Your task to perform on an android device: toggle priority inbox in the gmail app Image 0: 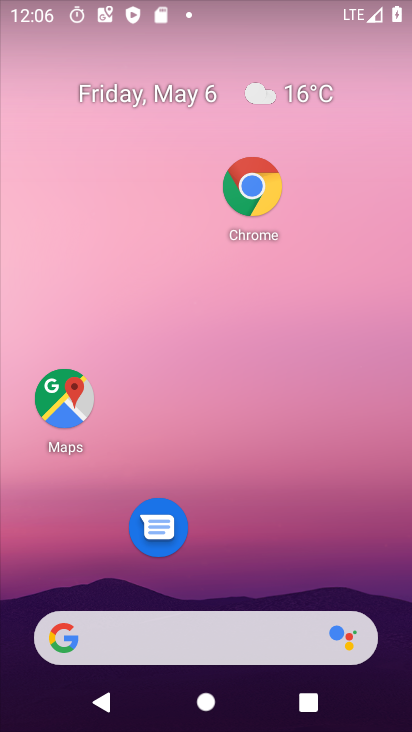
Step 0: drag from (229, 501) to (291, 0)
Your task to perform on an android device: toggle priority inbox in the gmail app Image 1: 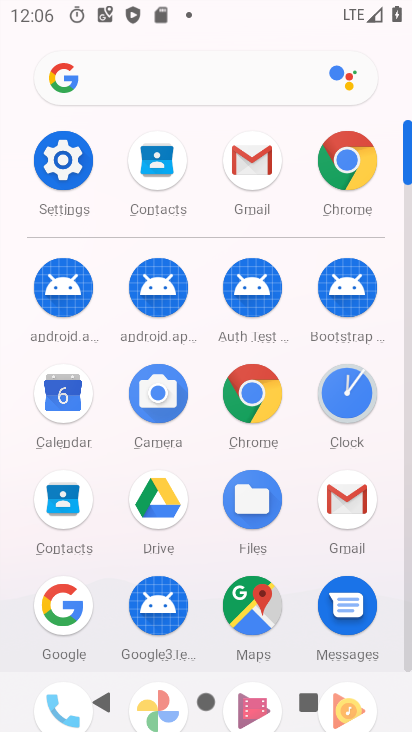
Step 1: click (356, 511)
Your task to perform on an android device: toggle priority inbox in the gmail app Image 2: 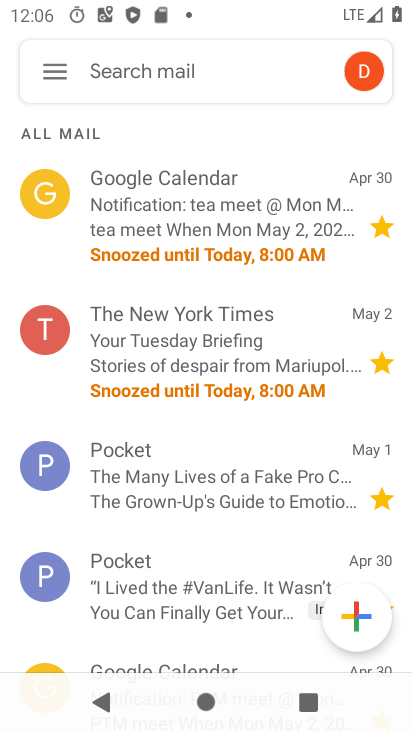
Step 2: click (57, 80)
Your task to perform on an android device: toggle priority inbox in the gmail app Image 3: 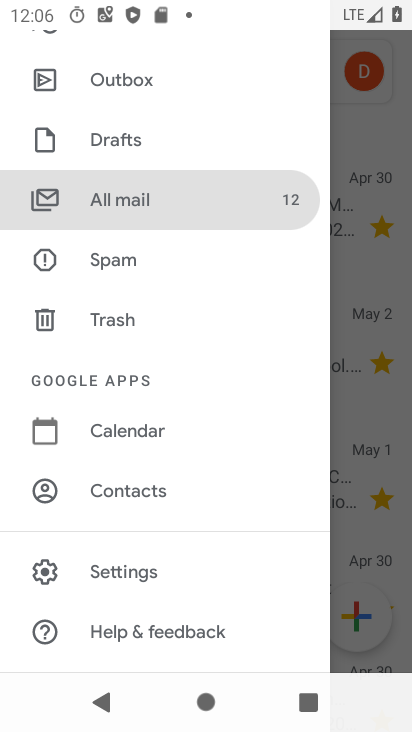
Step 3: drag from (154, 597) to (155, 537)
Your task to perform on an android device: toggle priority inbox in the gmail app Image 4: 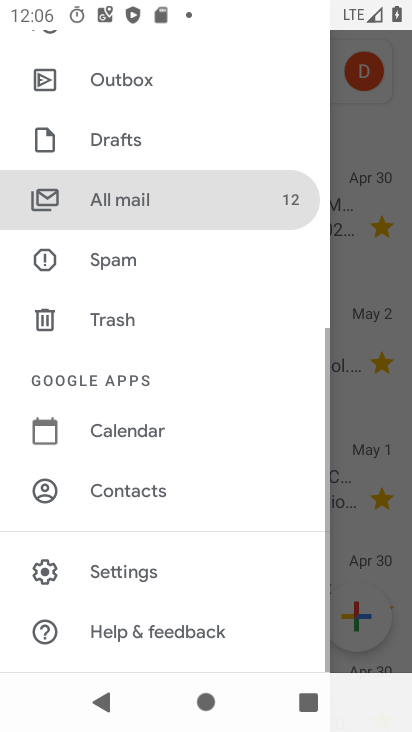
Step 4: click (139, 570)
Your task to perform on an android device: toggle priority inbox in the gmail app Image 5: 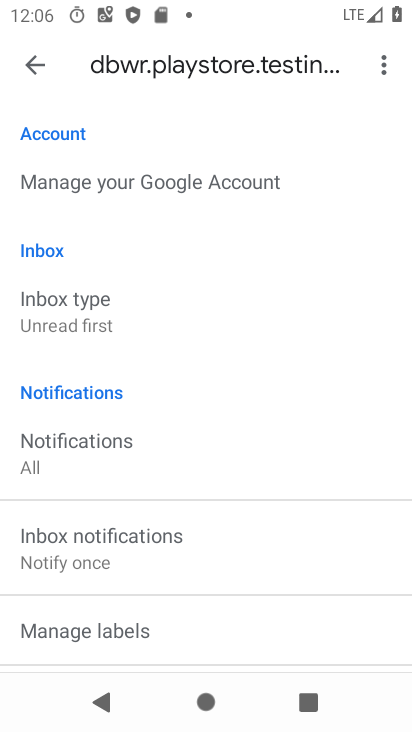
Step 5: click (33, 60)
Your task to perform on an android device: toggle priority inbox in the gmail app Image 6: 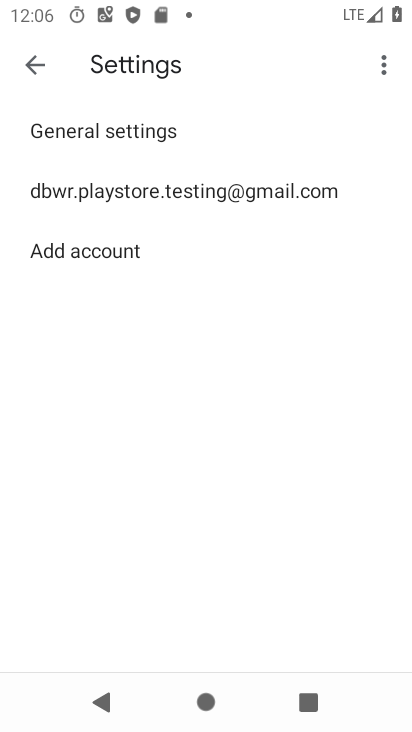
Step 6: click (163, 203)
Your task to perform on an android device: toggle priority inbox in the gmail app Image 7: 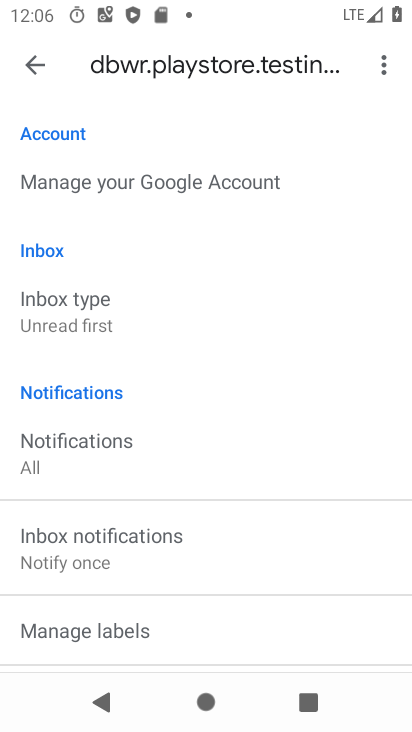
Step 7: click (120, 301)
Your task to perform on an android device: toggle priority inbox in the gmail app Image 8: 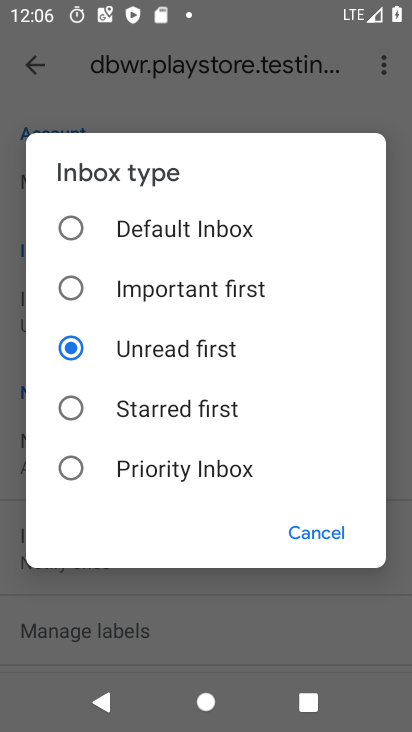
Step 8: click (64, 468)
Your task to perform on an android device: toggle priority inbox in the gmail app Image 9: 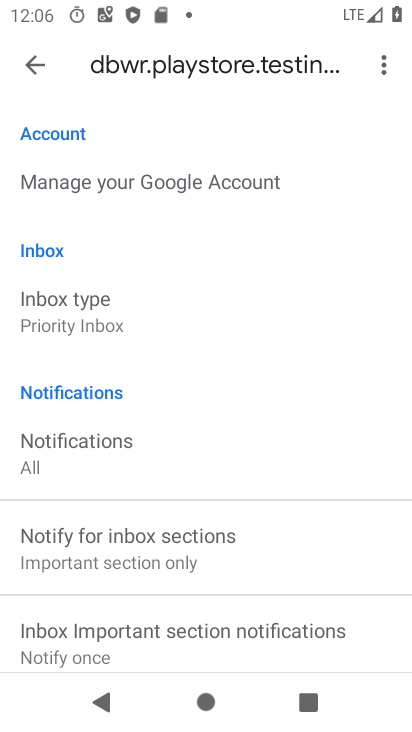
Step 9: task complete